Your task to perform on an android device: turn on sleep mode Image 0: 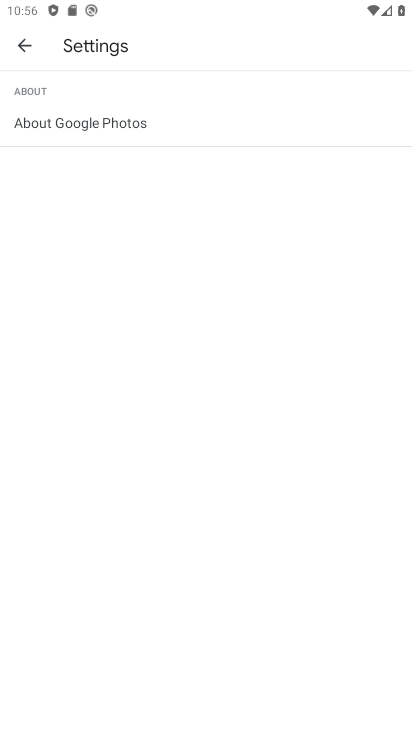
Step 0: press home button
Your task to perform on an android device: turn on sleep mode Image 1: 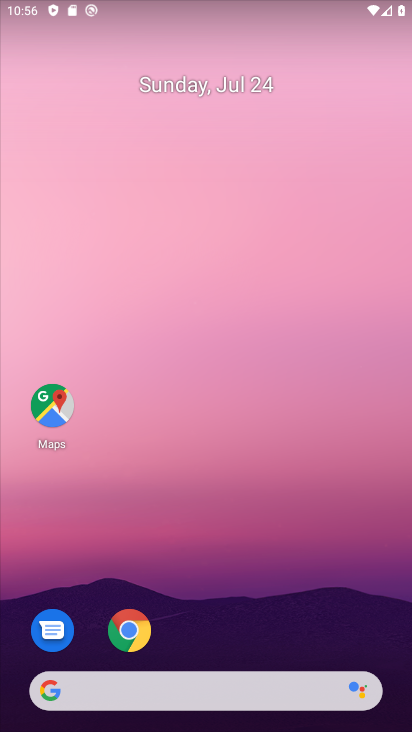
Step 1: drag from (185, 624) to (183, 277)
Your task to perform on an android device: turn on sleep mode Image 2: 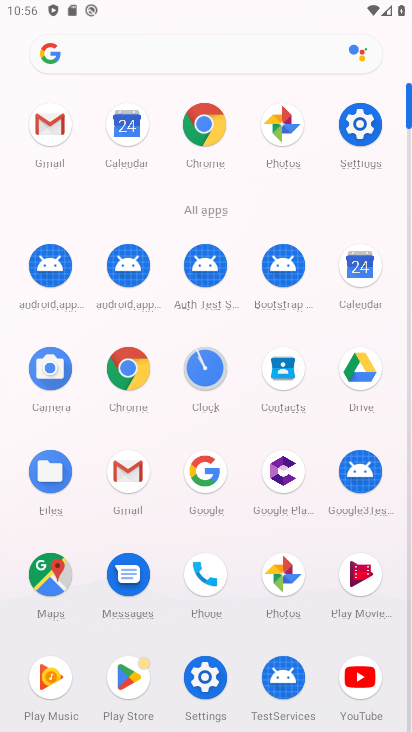
Step 2: click (357, 124)
Your task to perform on an android device: turn on sleep mode Image 3: 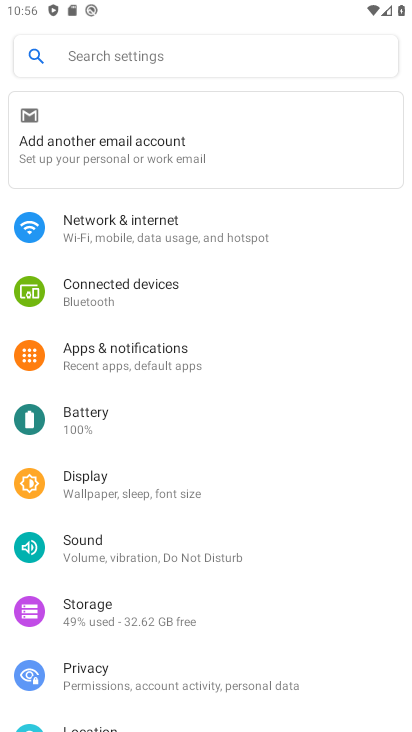
Step 3: task complete